Your task to perform on an android device: change text size in settings app Image 0: 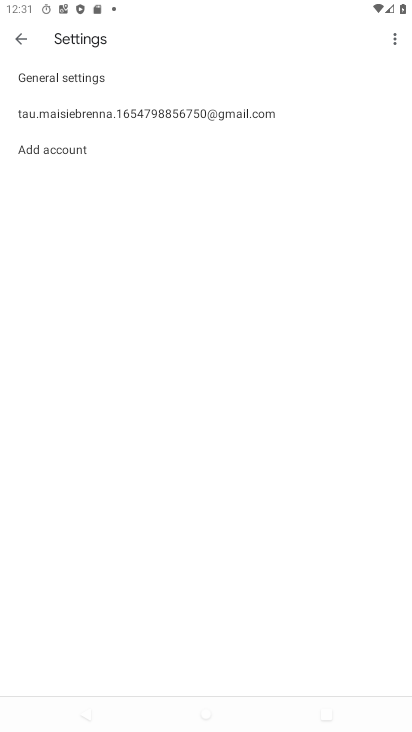
Step 0: click (20, 44)
Your task to perform on an android device: change text size in settings app Image 1: 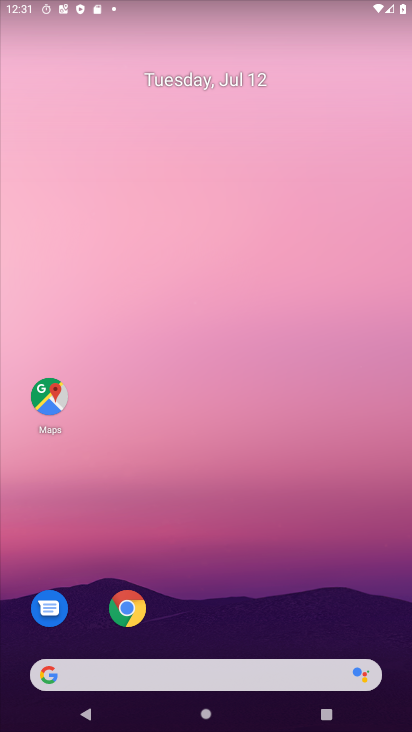
Step 1: drag from (246, 654) to (130, 36)
Your task to perform on an android device: change text size in settings app Image 2: 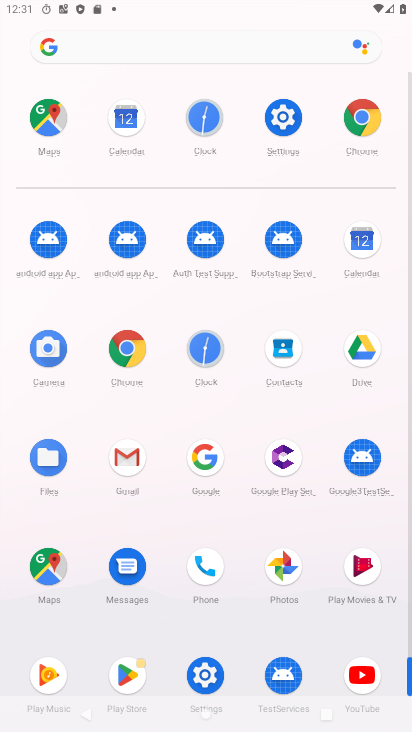
Step 2: click (209, 646)
Your task to perform on an android device: change text size in settings app Image 3: 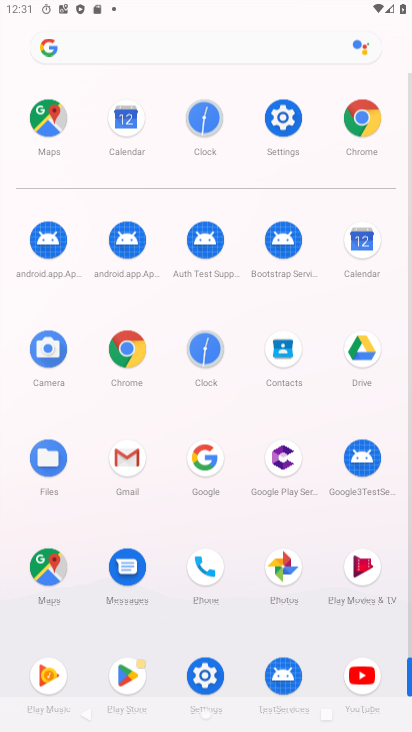
Step 3: click (210, 657)
Your task to perform on an android device: change text size in settings app Image 4: 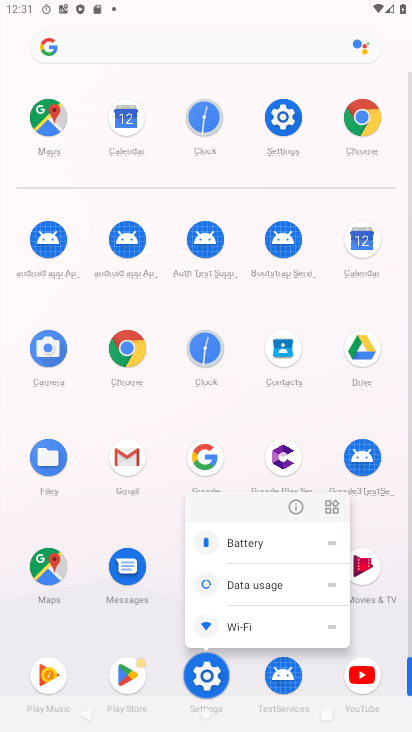
Step 4: click (210, 657)
Your task to perform on an android device: change text size in settings app Image 5: 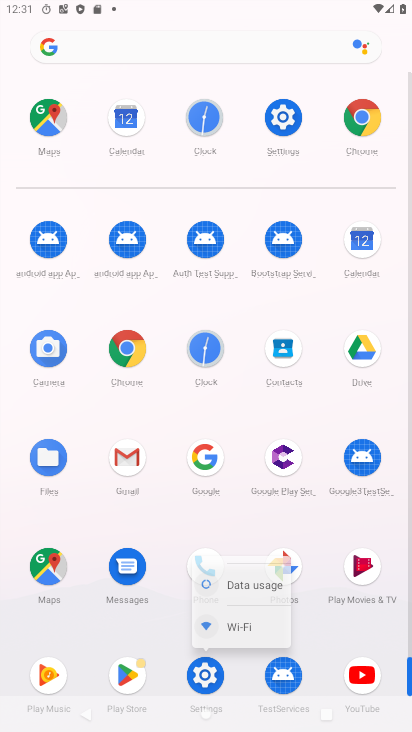
Step 5: click (207, 659)
Your task to perform on an android device: change text size in settings app Image 6: 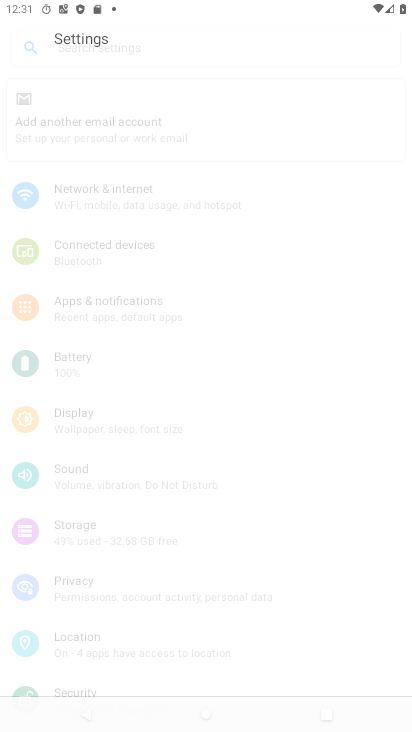
Step 6: click (206, 660)
Your task to perform on an android device: change text size in settings app Image 7: 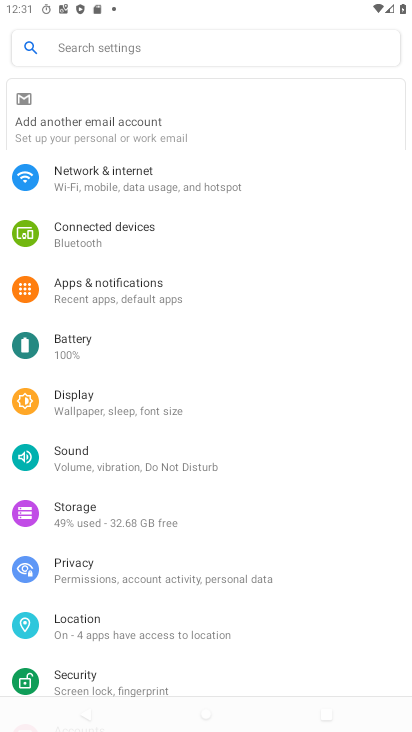
Step 7: click (206, 660)
Your task to perform on an android device: change text size in settings app Image 8: 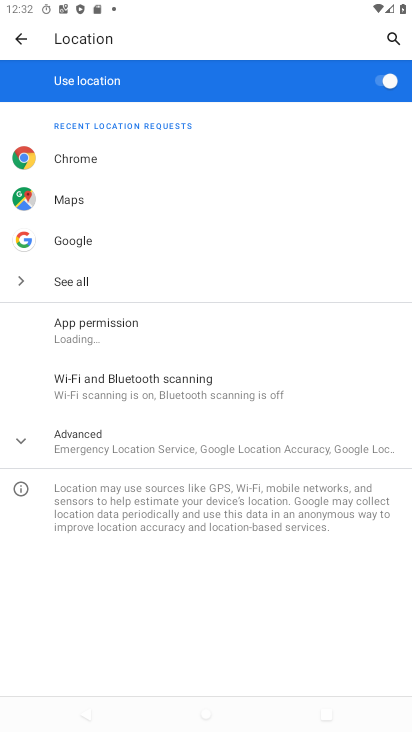
Step 8: click (19, 31)
Your task to perform on an android device: change text size in settings app Image 9: 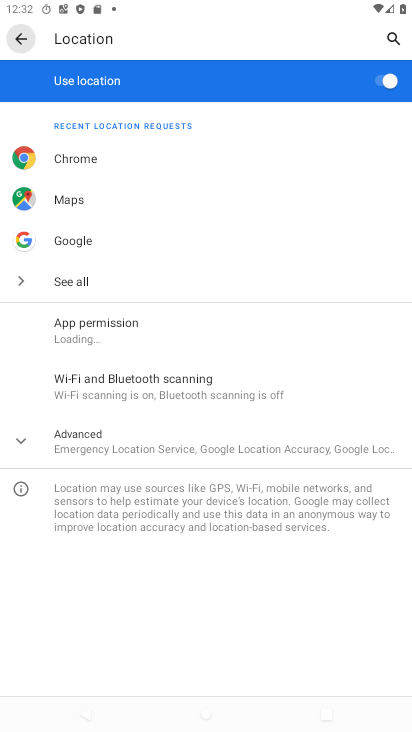
Step 9: click (19, 34)
Your task to perform on an android device: change text size in settings app Image 10: 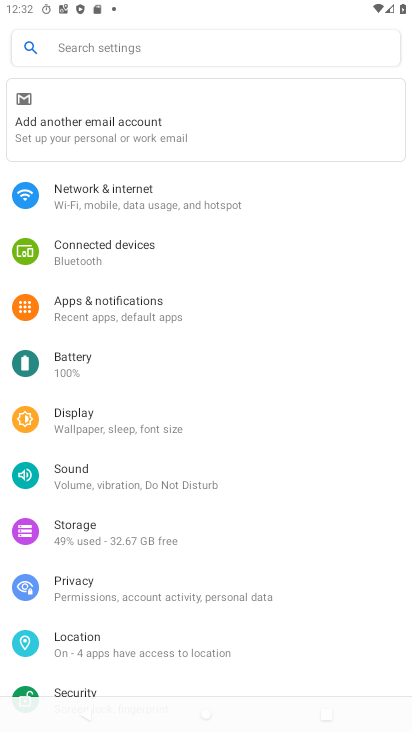
Step 10: drag from (169, 568) to (167, 133)
Your task to perform on an android device: change text size in settings app Image 11: 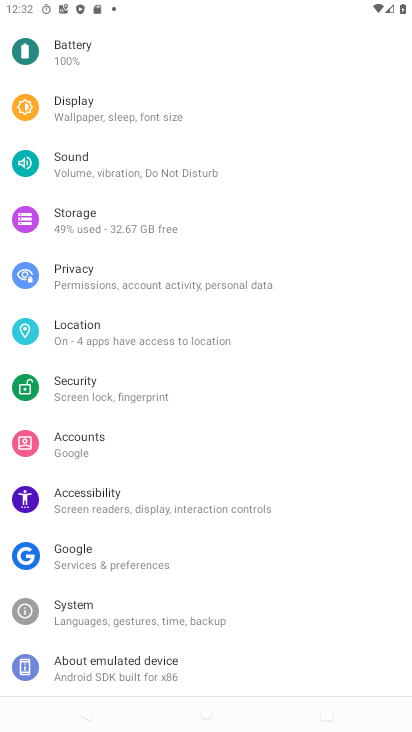
Step 11: click (71, 106)
Your task to perform on an android device: change text size in settings app Image 12: 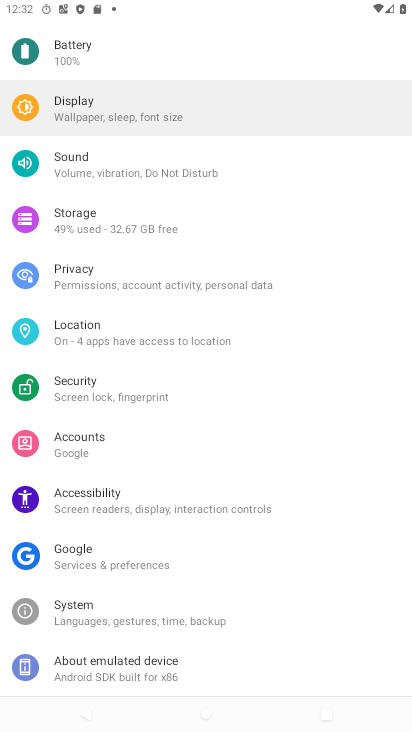
Step 12: click (71, 106)
Your task to perform on an android device: change text size in settings app Image 13: 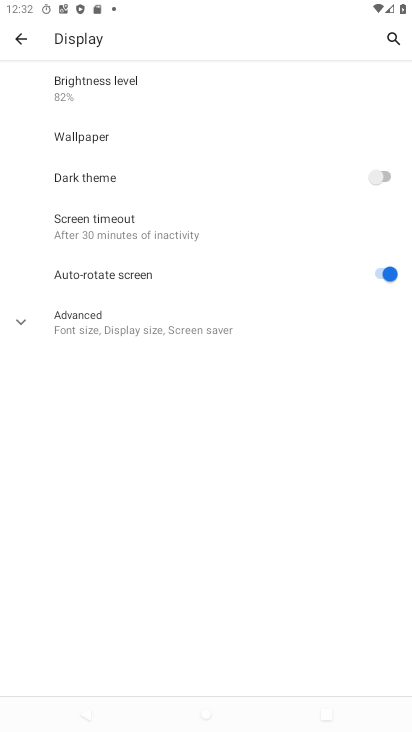
Step 13: click (129, 323)
Your task to perform on an android device: change text size in settings app Image 14: 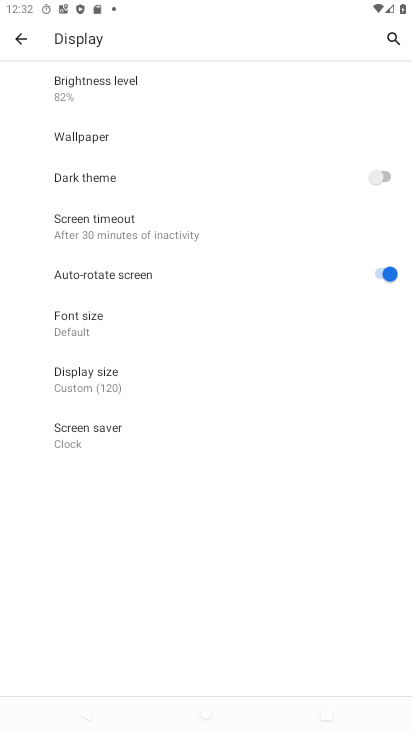
Step 14: click (69, 328)
Your task to perform on an android device: change text size in settings app Image 15: 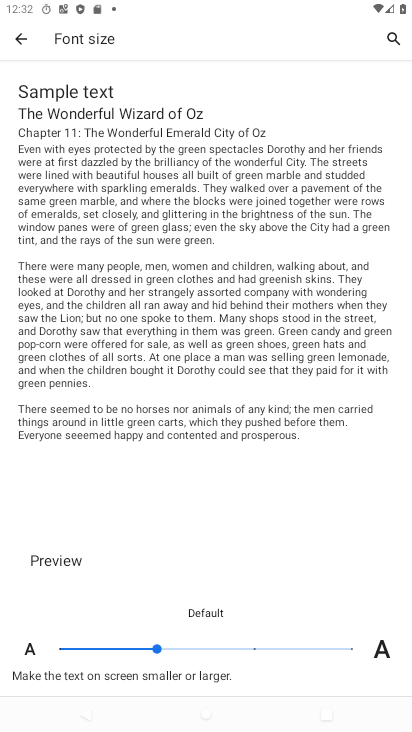
Step 15: click (256, 649)
Your task to perform on an android device: change text size in settings app Image 16: 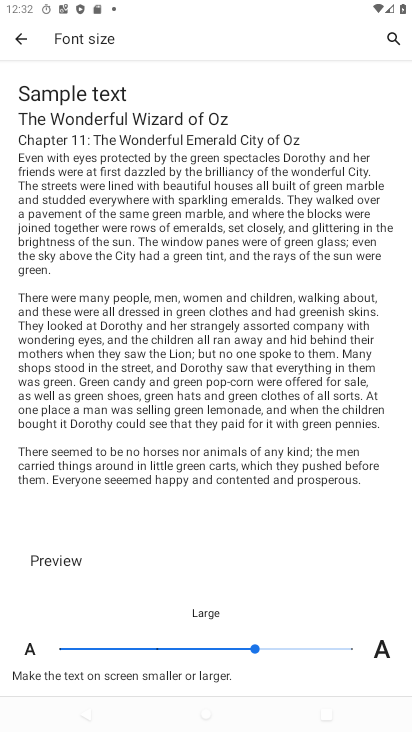
Step 16: click (256, 649)
Your task to perform on an android device: change text size in settings app Image 17: 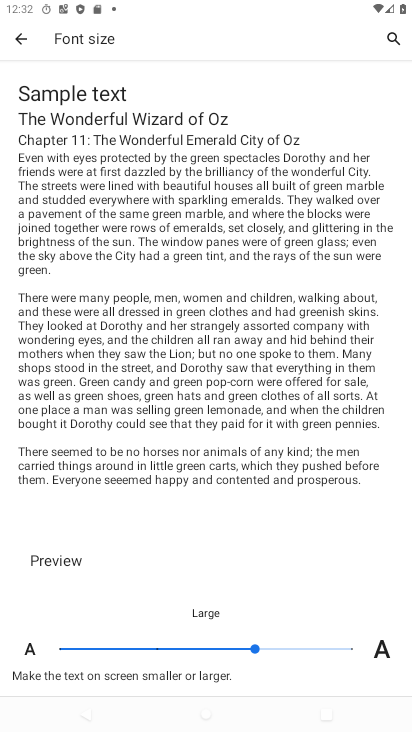
Step 17: click (255, 648)
Your task to perform on an android device: change text size in settings app Image 18: 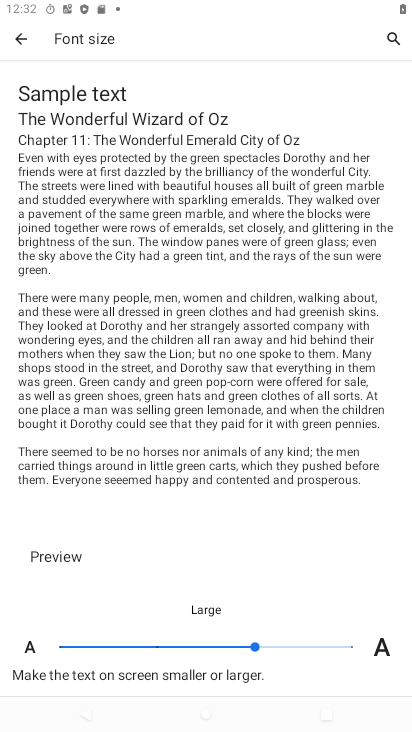
Step 18: click (345, 645)
Your task to perform on an android device: change text size in settings app Image 19: 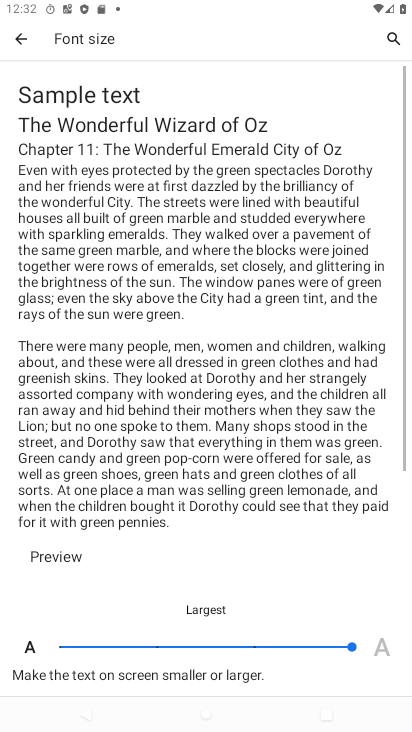
Step 19: click (346, 646)
Your task to perform on an android device: change text size in settings app Image 20: 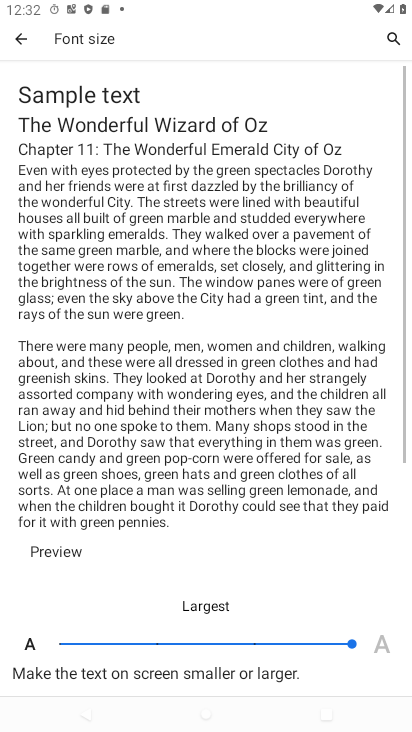
Step 20: task complete